Your task to perform on an android device: manage bookmarks in the chrome app Image 0: 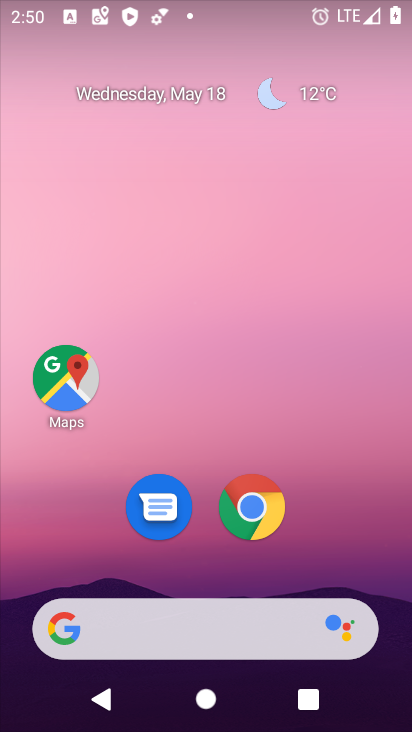
Step 0: click (255, 511)
Your task to perform on an android device: manage bookmarks in the chrome app Image 1: 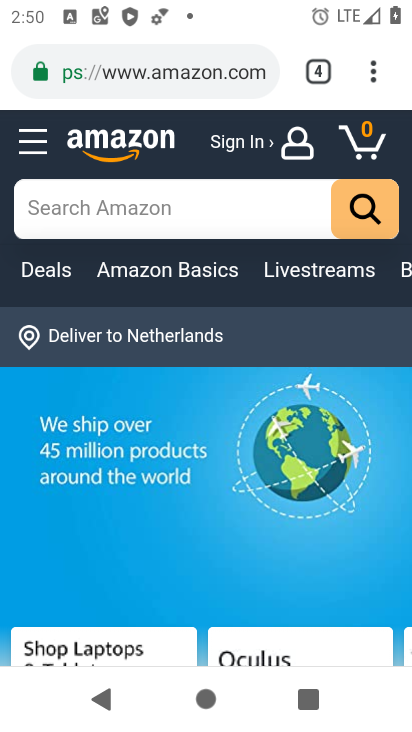
Step 1: click (369, 70)
Your task to perform on an android device: manage bookmarks in the chrome app Image 2: 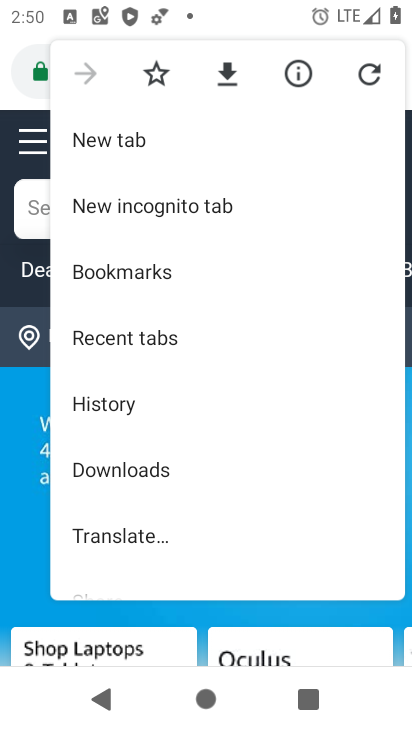
Step 2: click (141, 270)
Your task to perform on an android device: manage bookmarks in the chrome app Image 3: 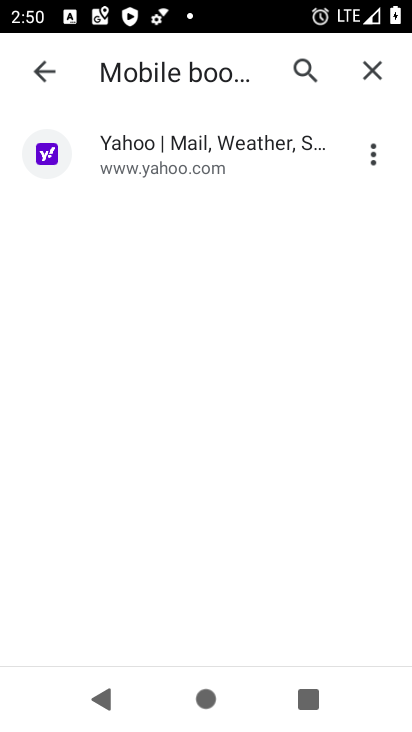
Step 3: click (184, 145)
Your task to perform on an android device: manage bookmarks in the chrome app Image 4: 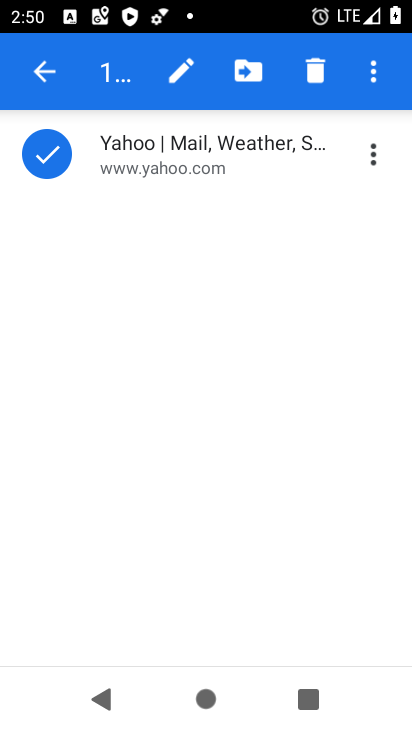
Step 4: click (246, 72)
Your task to perform on an android device: manage bookmarks in the chrome app Image 5: 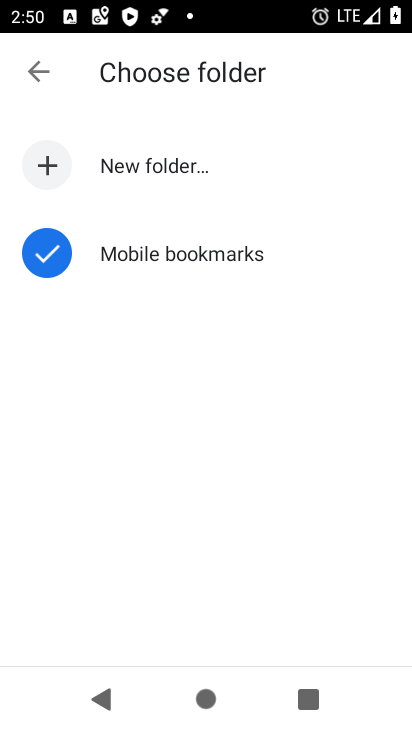
Step 5: click (43, 166)
Your task to perform on an android device: manage bookmarks in the chrome app Image 6: 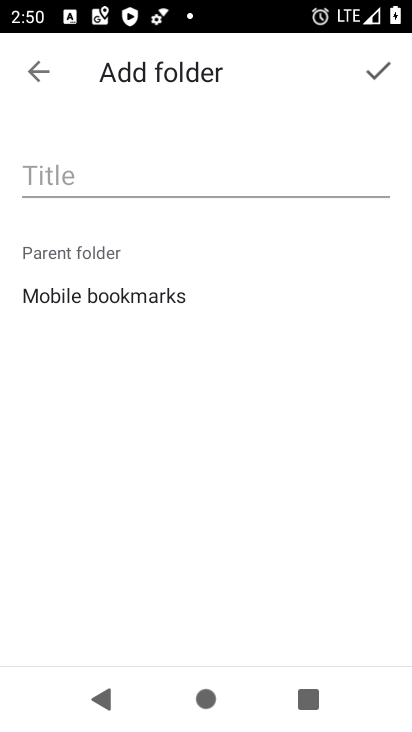
Step 6: type "cdfd"
Your task to perform on an android device: manage bookmarks in the chrome app Image 7: 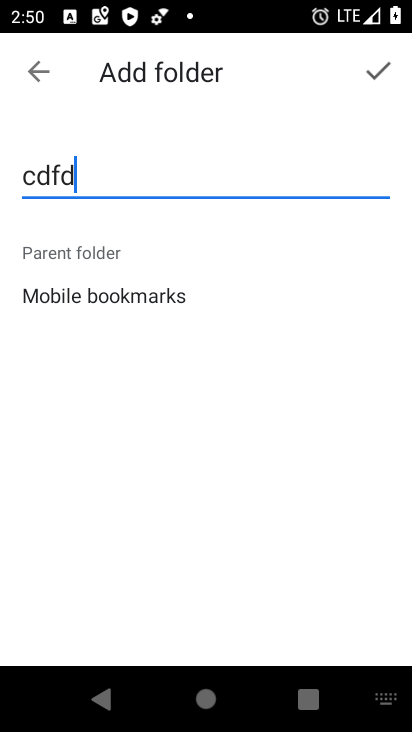
Step 7: click (379, 70)
Your task to perform on an android device: manage bookmarks in the chrome app Image 8: 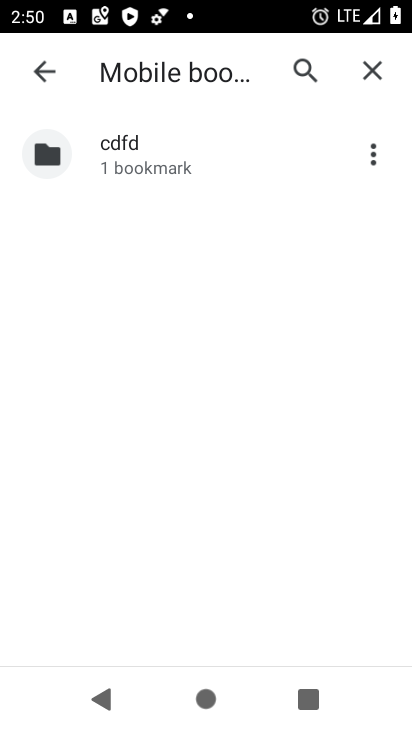
Step 8: click (143, 132)
Your task to perform on an android device: manage bookmarks in the chrome app Image 9: 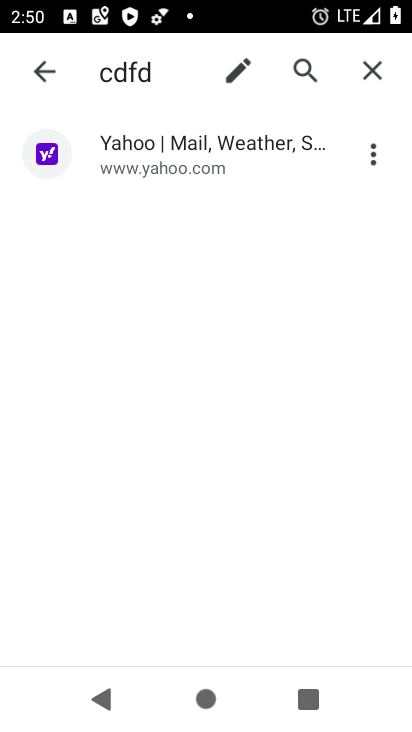
Step 9: task complete